Your task to perform on an android device: Open notification settings Image 0: 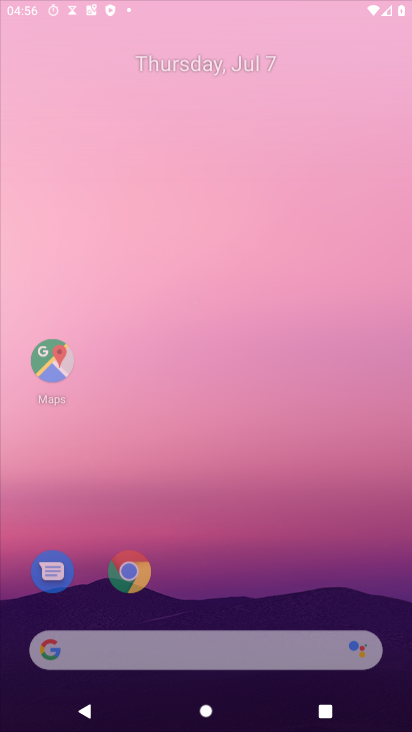
Step 0: press home button
Your task to perform on an android device: Open notification settings Image 1: 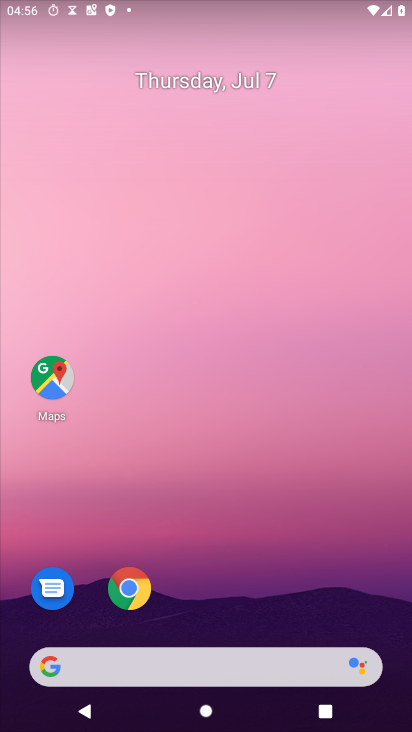
Step 1: drag from (232, 604) to (155, 276)
Your task to perform on an android device: Open notification settings Image 2: 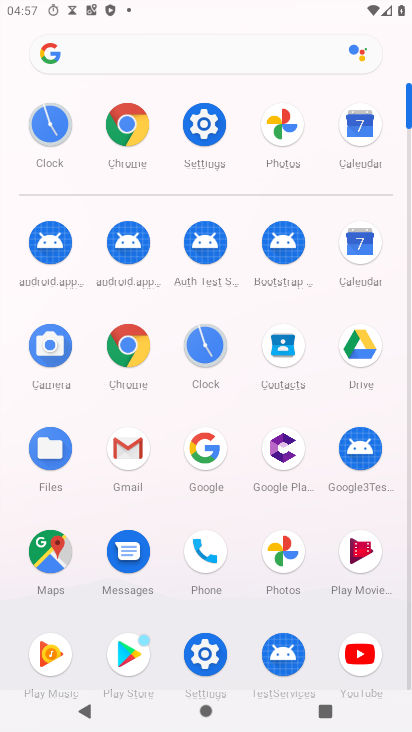
Step 2: click (201, 661)
Your task to perform on an android device: Open notification settings Image 3: 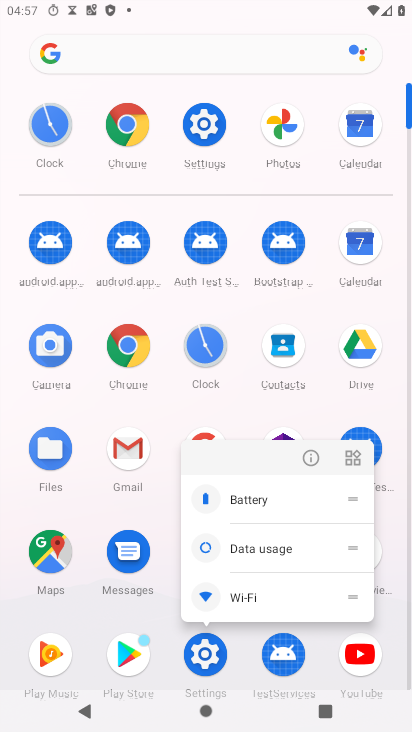
Step 3: click (201, 656)
Your task to perform on an android device: Open notification settings Image 4: 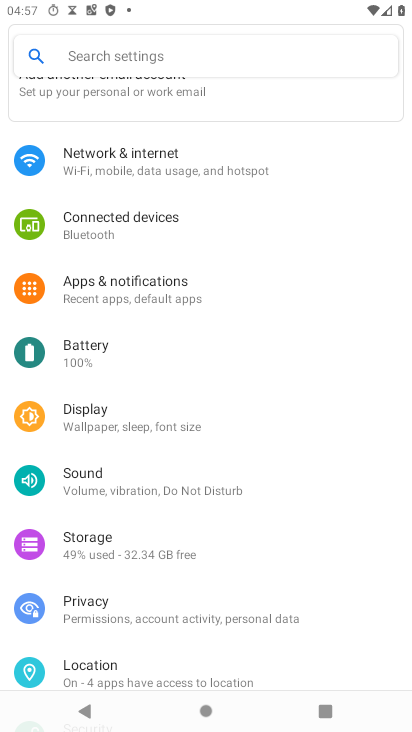
Step 4: click (120, 289)
Your task to perform on an android device: Open notification settings Image 5: 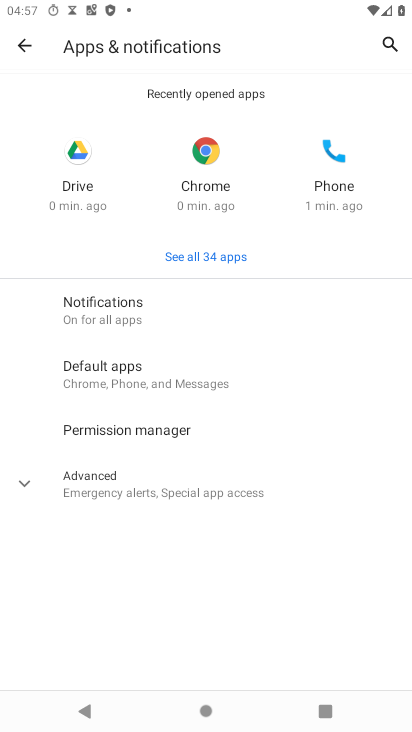
Step 5: click (119, 309)
Your task to perform on an android device: Open notification settings Image 6: 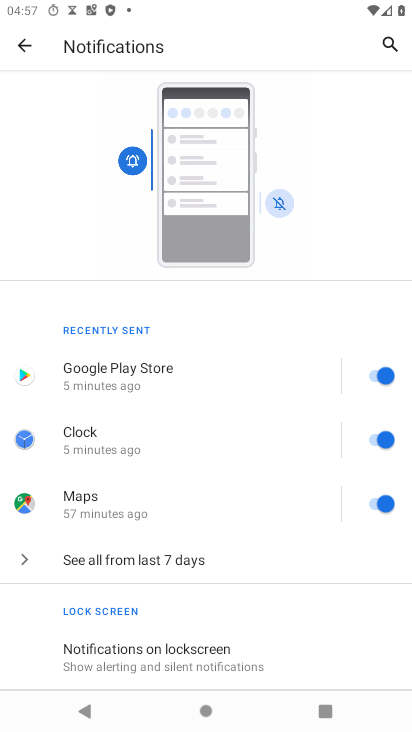
Step 6: task complete